Your task to perform on an android device: Turn off the flashlight Image 0: 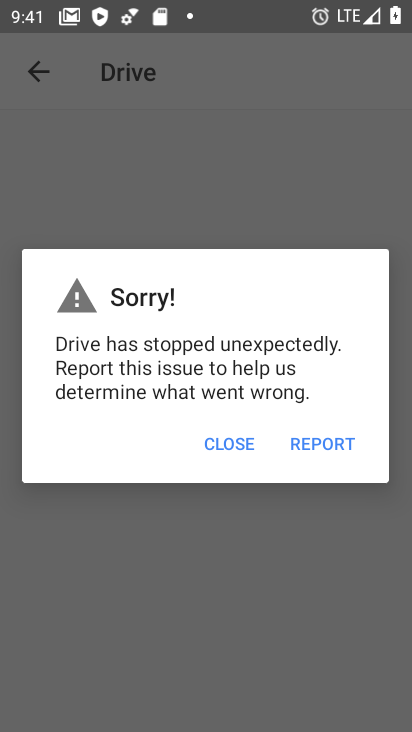
Step 0: press home button
Your task to perform on an android device: Turn off the flashlight Image 1: 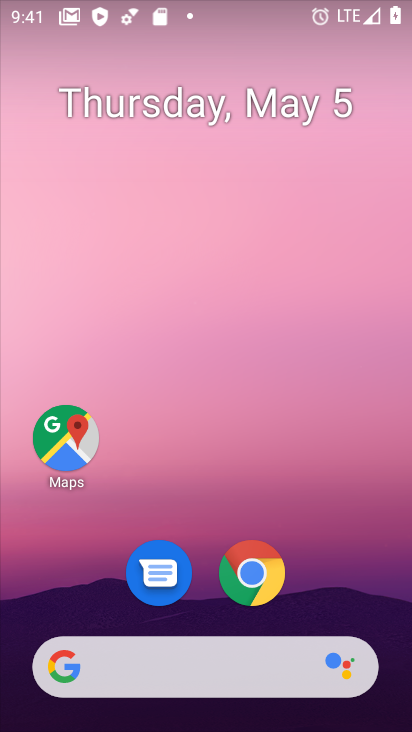
Step 1: drag from (168, 611) to (311, 45)
Your task to perform on an android device: Turn off the flashlight Image 2: 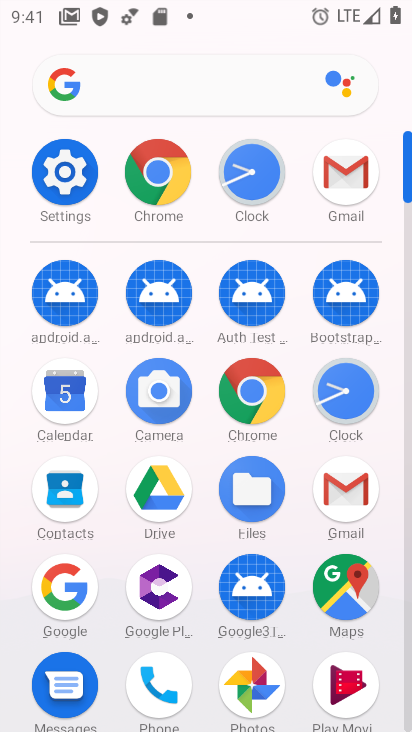
Step 2: click (75, 167)
Your task to perform on an android device: Turn off the flashlight Image 3: 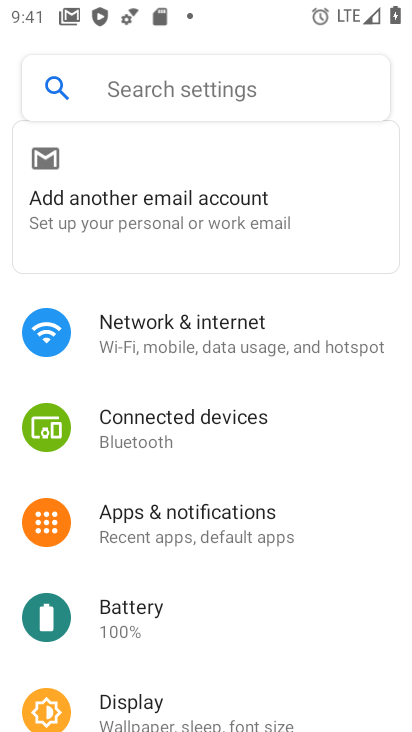
Step 3: click (171, 97)
Your task to perform on an android device: Turn off the flashlight Image 4: 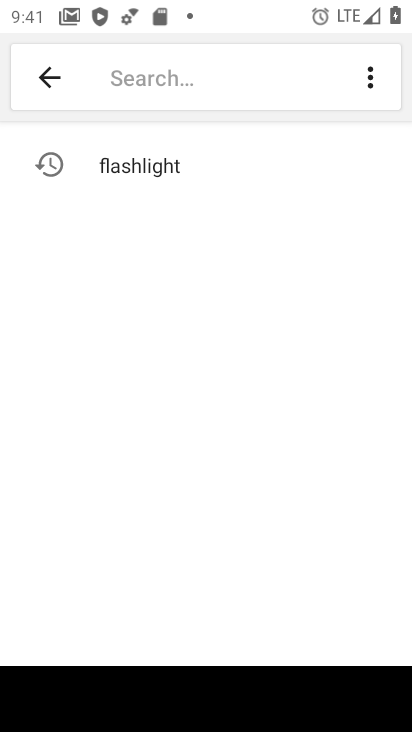
Step 4: type "flashlight"
Your task to perform on an android device: Turn off the flashlight Image 5: 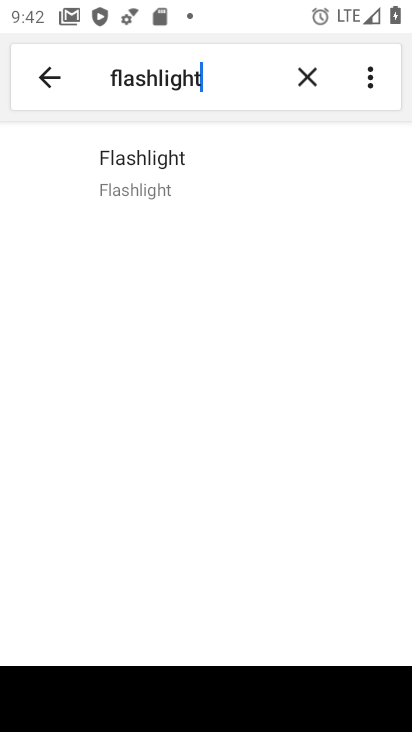
Step 5: click (168, 172)
Your task to perform on an android device: Turn off the flashlight Image 6: 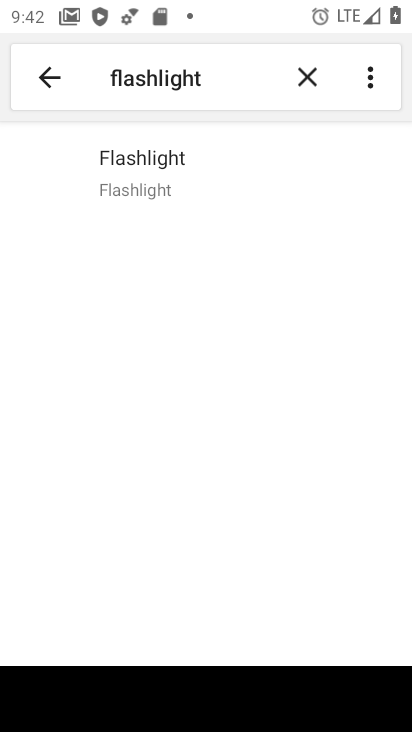
Step 6: task complete